Your task to perform on an android device: Go to network settings Image 0: 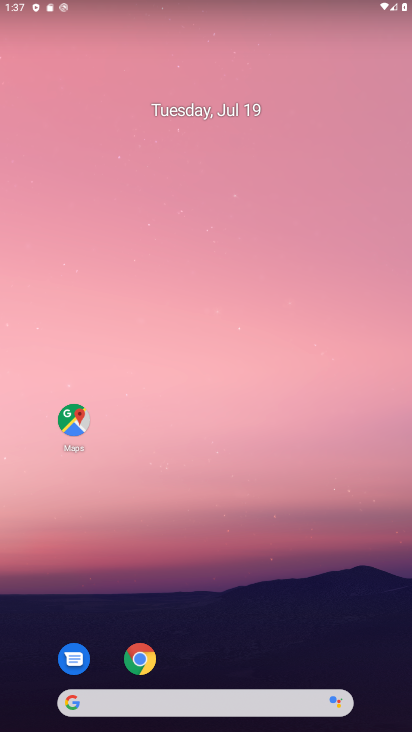
Step 0: drag from (190, 639) to (235, 191)
Your task to perform on an android device: Go to network settings Image 1: 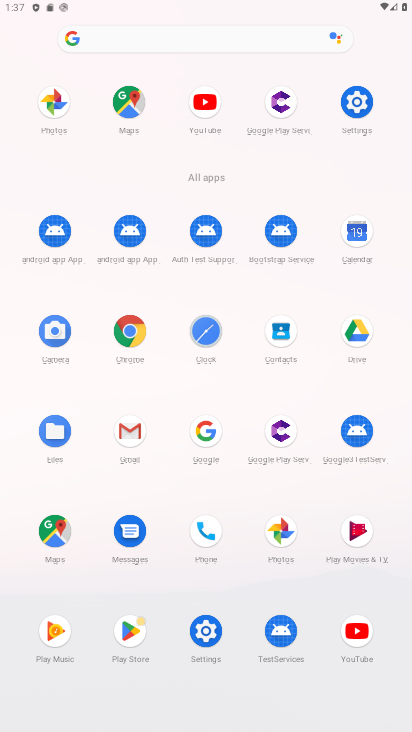
Step 1: click (357, 104)
Your task to perform on an android device: Go to network settings Image 2: 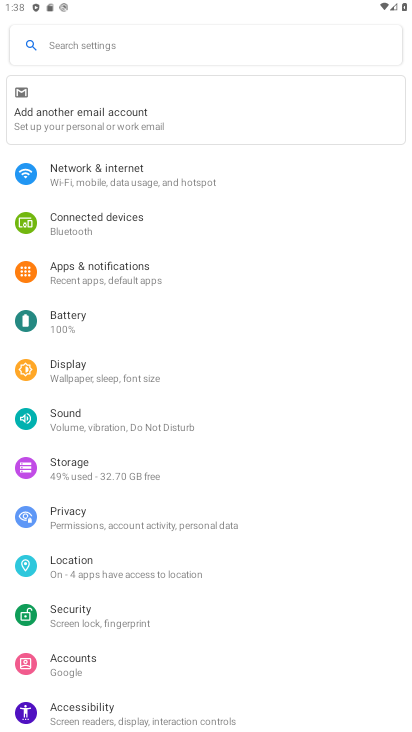
Step 2: click (122, 168)
Your task to perform on an android device: Go to network settings Image 3: 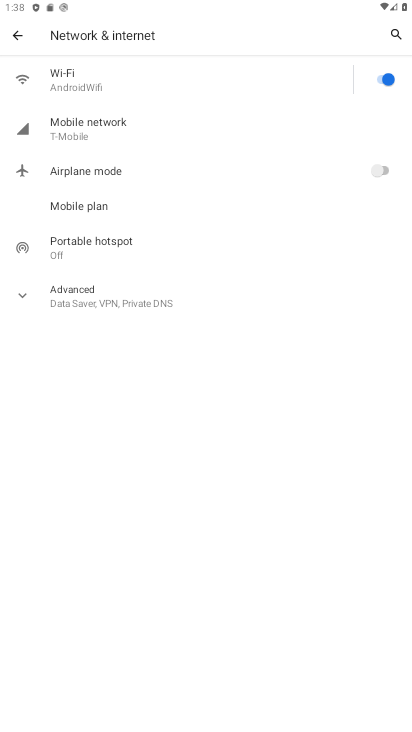
Step 3: click (85, 132)
Your task to perform on an android device: Go to network settings Image 4: 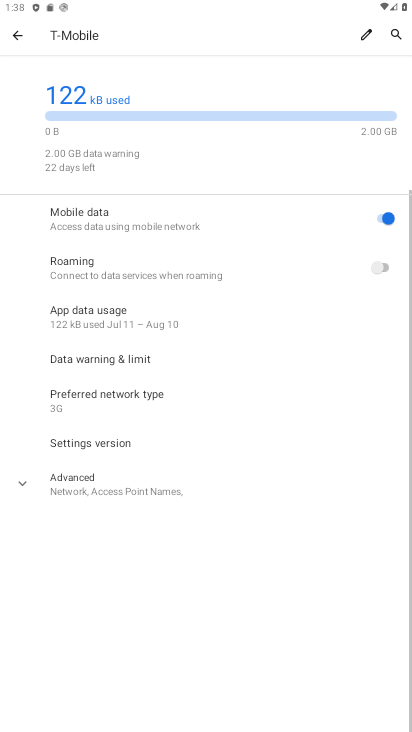
Step 4: task complete